Your task to perform on an android device: Set the phone to "Do not disturb". Image 0: 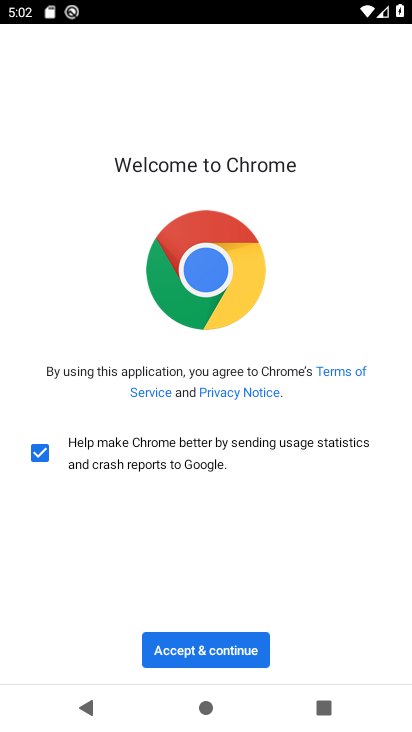
Step 0: press home button
Your task to perform on an android device: Set the phone to "Do not disturb". Image 1: 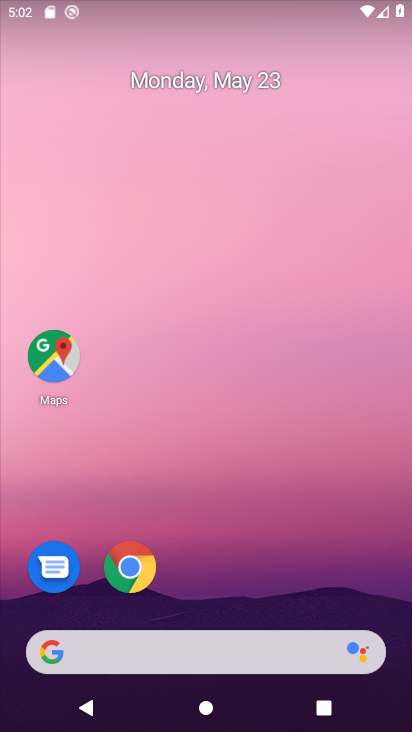
Step 1: drag from (258, 590) to (292, 222)
Your task to perform on an android device: Set the phone to "Do not disturb". Image 2: 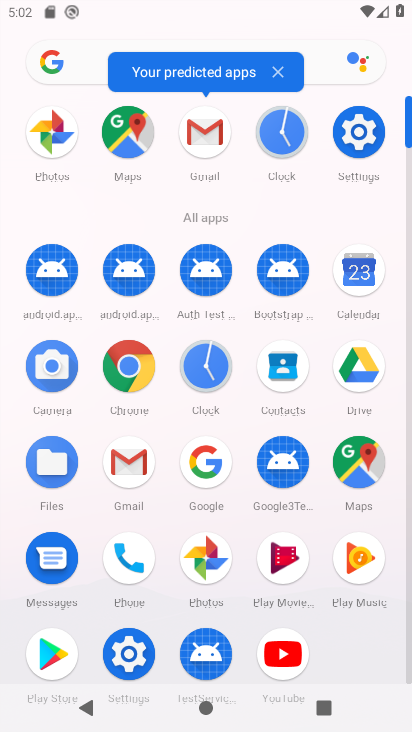
Step 2: click (359, 134)
Your task to perform on an android device: Set the phone to "Do not disturb". Image 3: 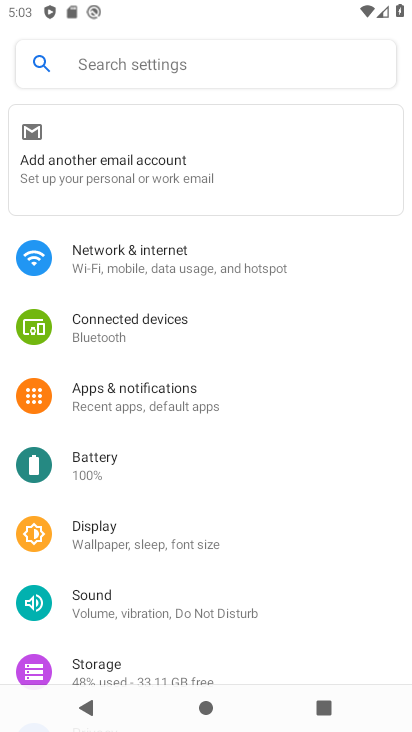
Step 3: drag from (155, 515) to (193, 438)
Your task to perform on an android device: Set the phone to "Do not disturb". Image 4: 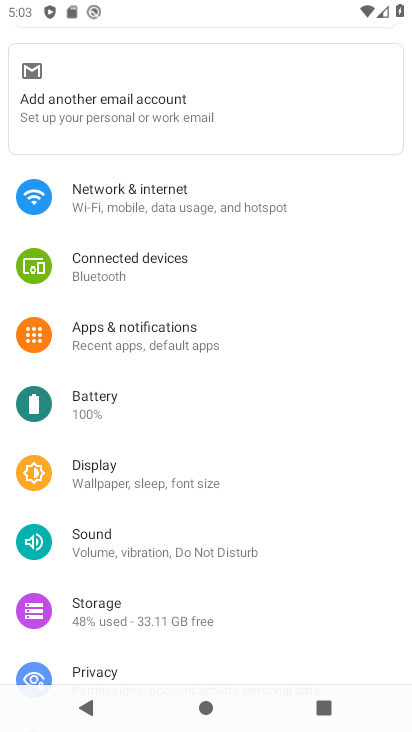
Step 4: click (171, 549)
Your task to perform on an android device: Set the phone to "Do not disturb". Image 5: 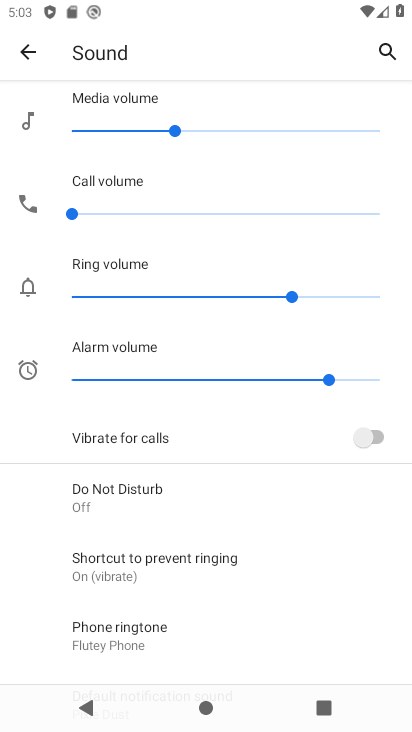
Step 5: click (125, 489)
Your task to perform on an android device: Set the phone to "Do not disturb". Image 6: 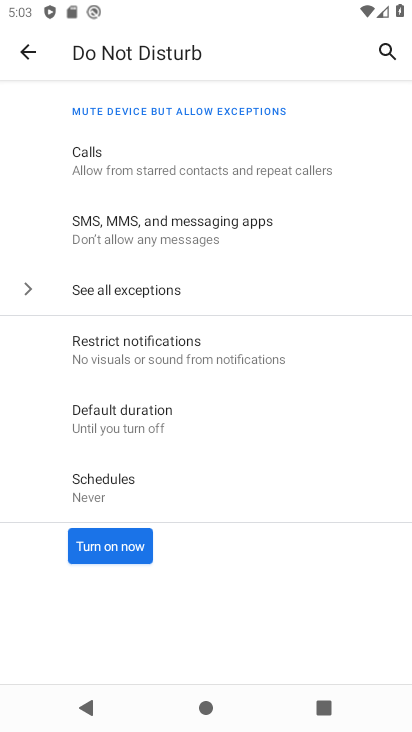
Step 6: click (119, 541)
Your task to perform on an android device: Set the phone to "Do not disturb". Image 7: 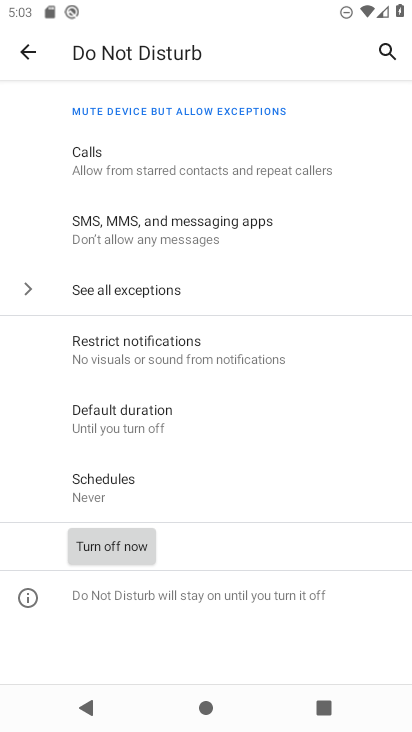
Step 7: task complete